Your task to perform on an android device: Empty the shopping cart on target.com. Search for dell alienware on target.com, select the first entry, and add it to the cart. Image 0: 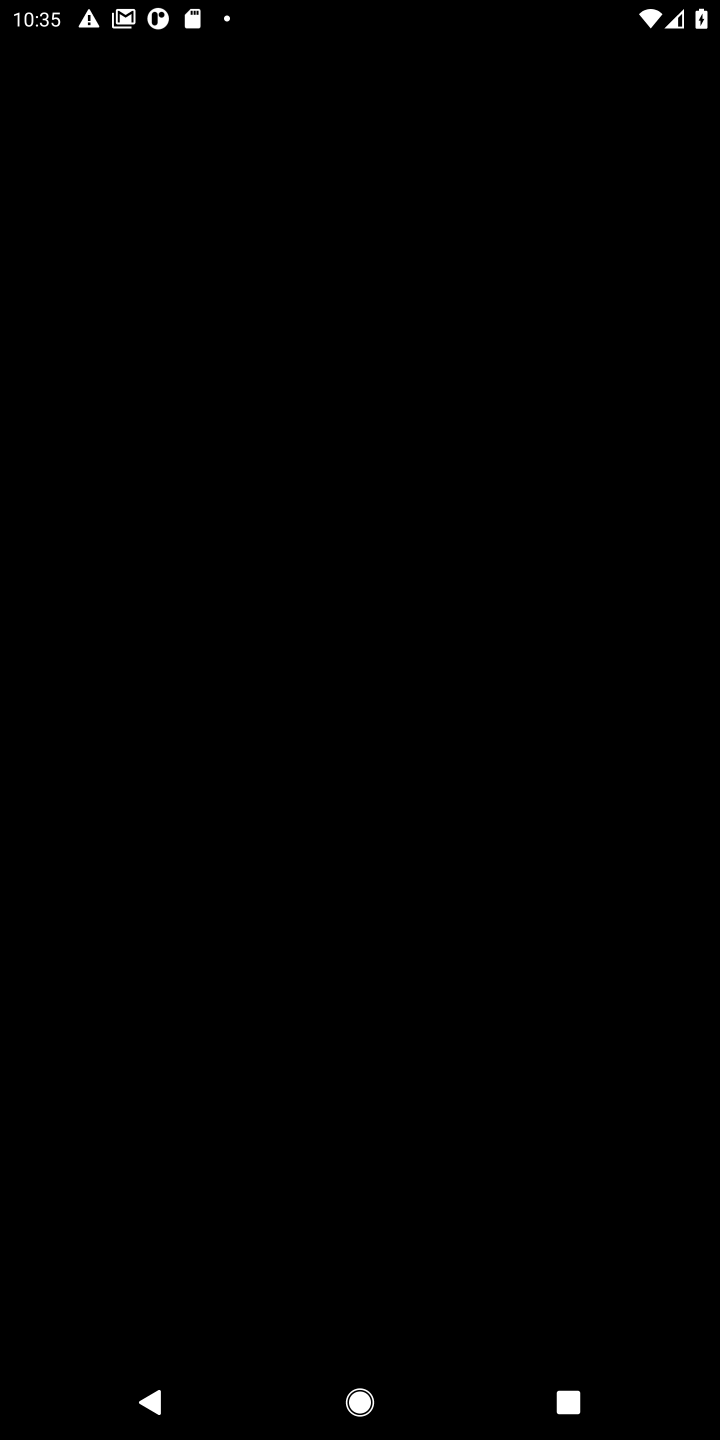
Step 0: press home button
Your task to perform on an android device: Empty the shopping cart on target.com. Search for dell alienware on target.com, select the first entry, and add it to the cart. Image 1: 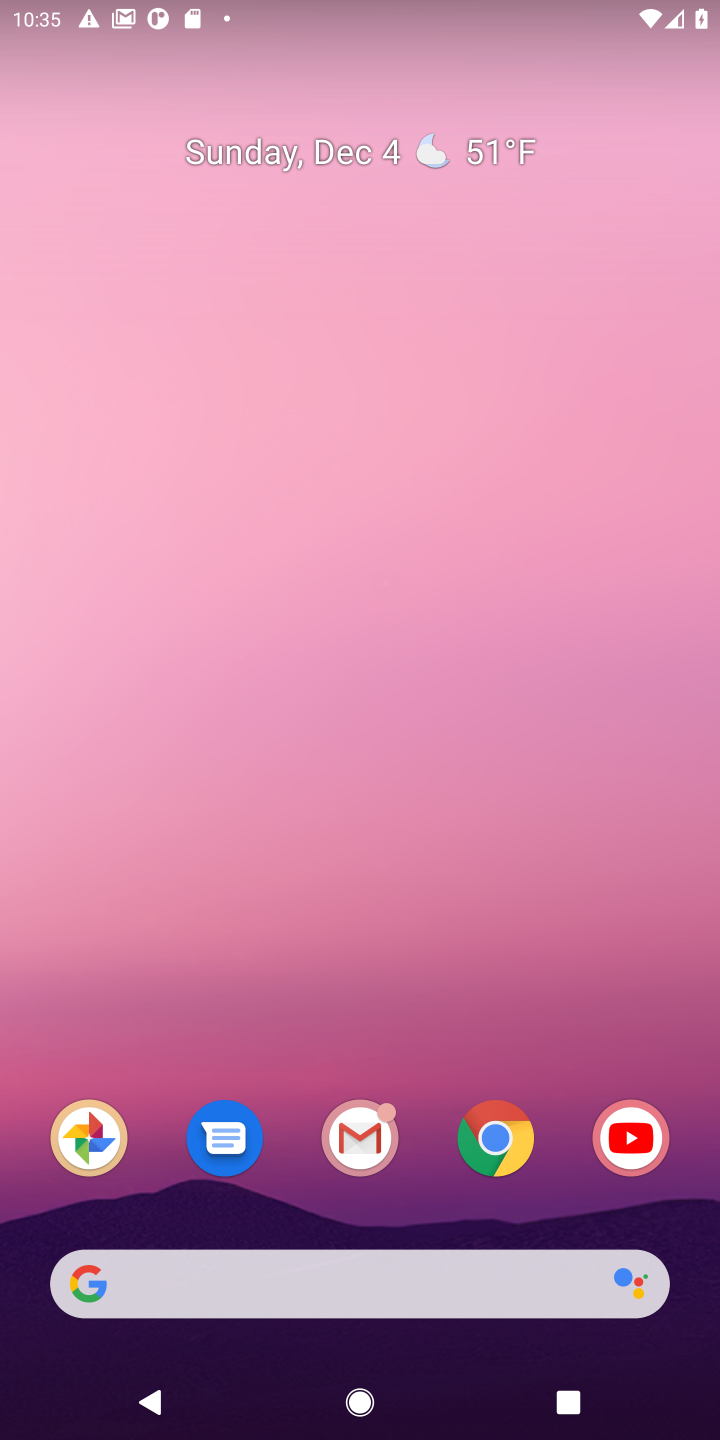
Step 1: click (489, 1147)
Your task to perform on an android device: Empty the shopping cart on target.com. Search for dell alienware on target.com, select the first entry, and add it to the cart. Image 2: 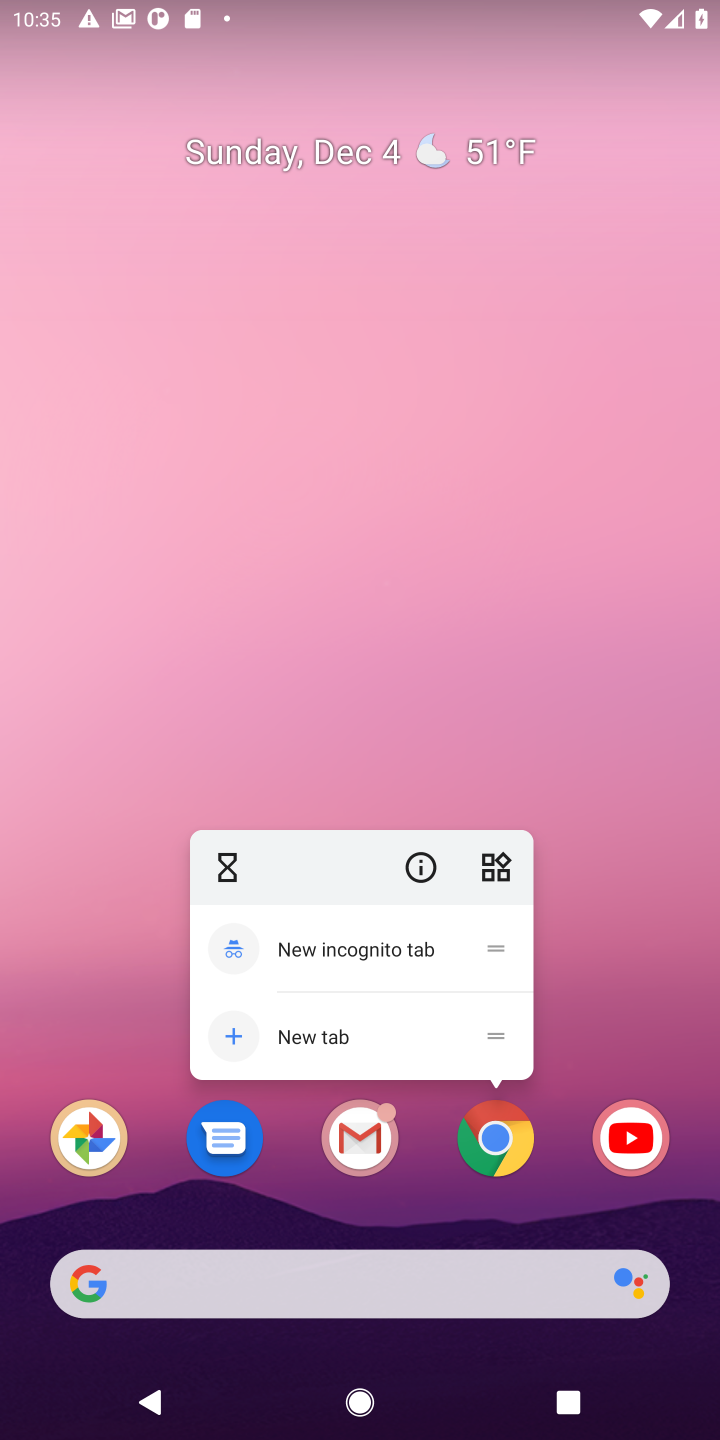
Step 2: click (489, 1147)
Your task to perform on an android device: Empty the shopping cart on target.com. Search for dell alienware on target.com, select the first entry, and add it to the cart. Image 3: 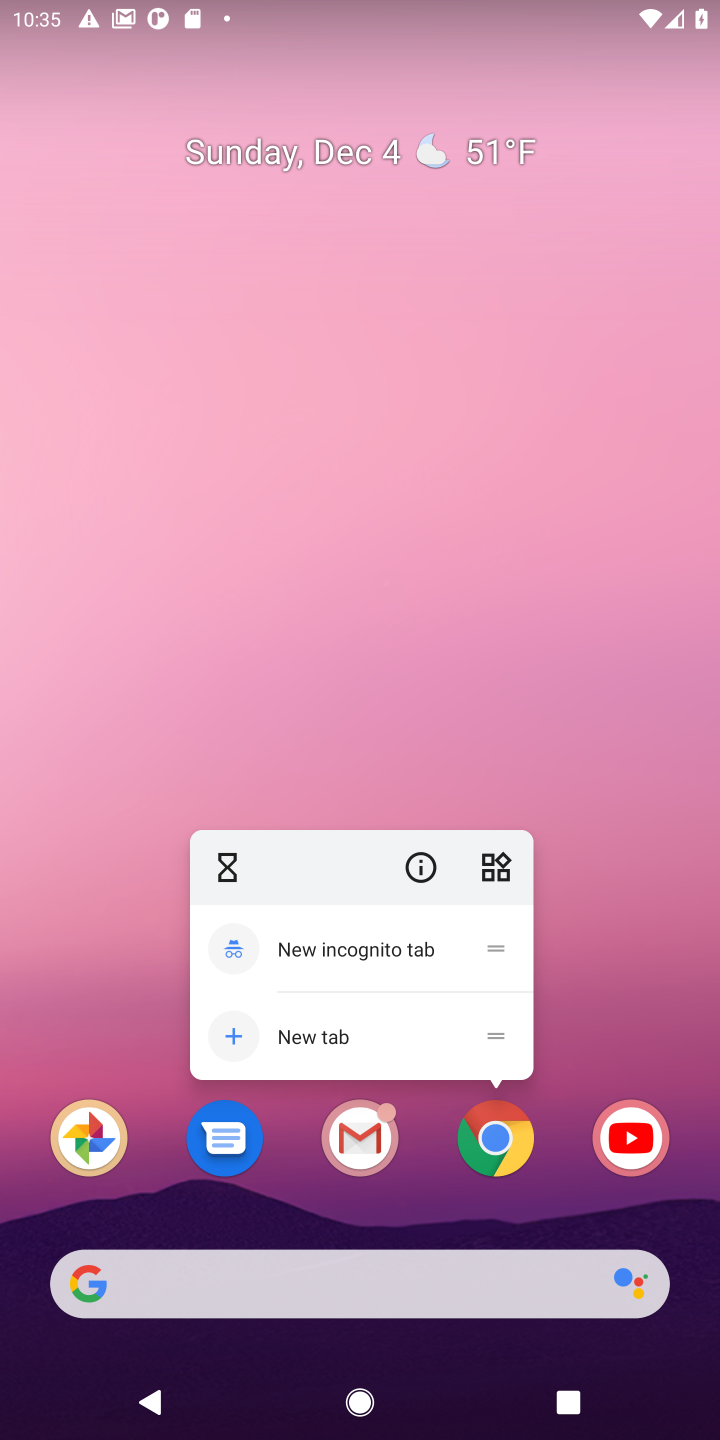
Step 3: click (489, 1147)
Your task to perform on an android device: Empty the shopping cart on target.com. Search for dell alienware on target.com, select the first entry, and add it to the cart. Image 4: 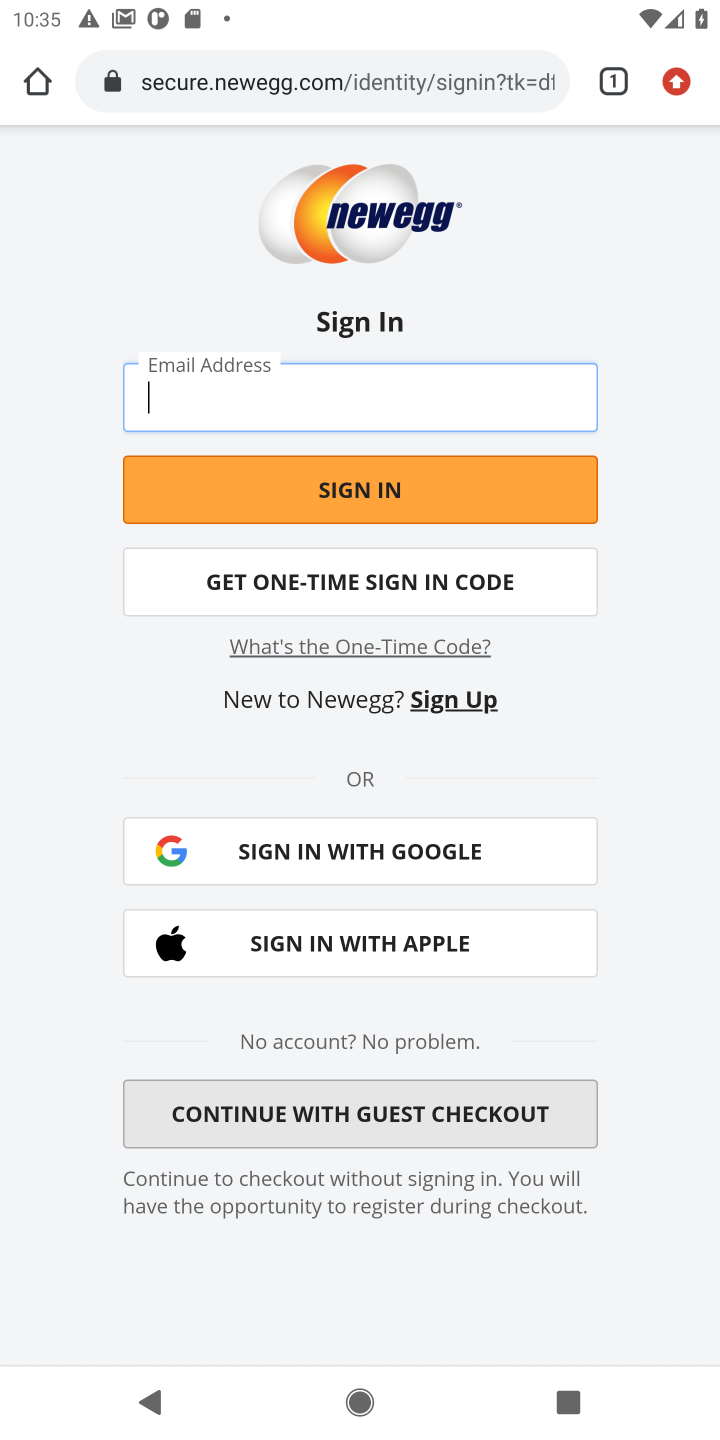
Step 4: click (427, 62)
Your task to perform on an android device: Empty the shopping cart on target.com. Search for dell alienware on target.com, select the first entry, and add it to the cart. Image 5: 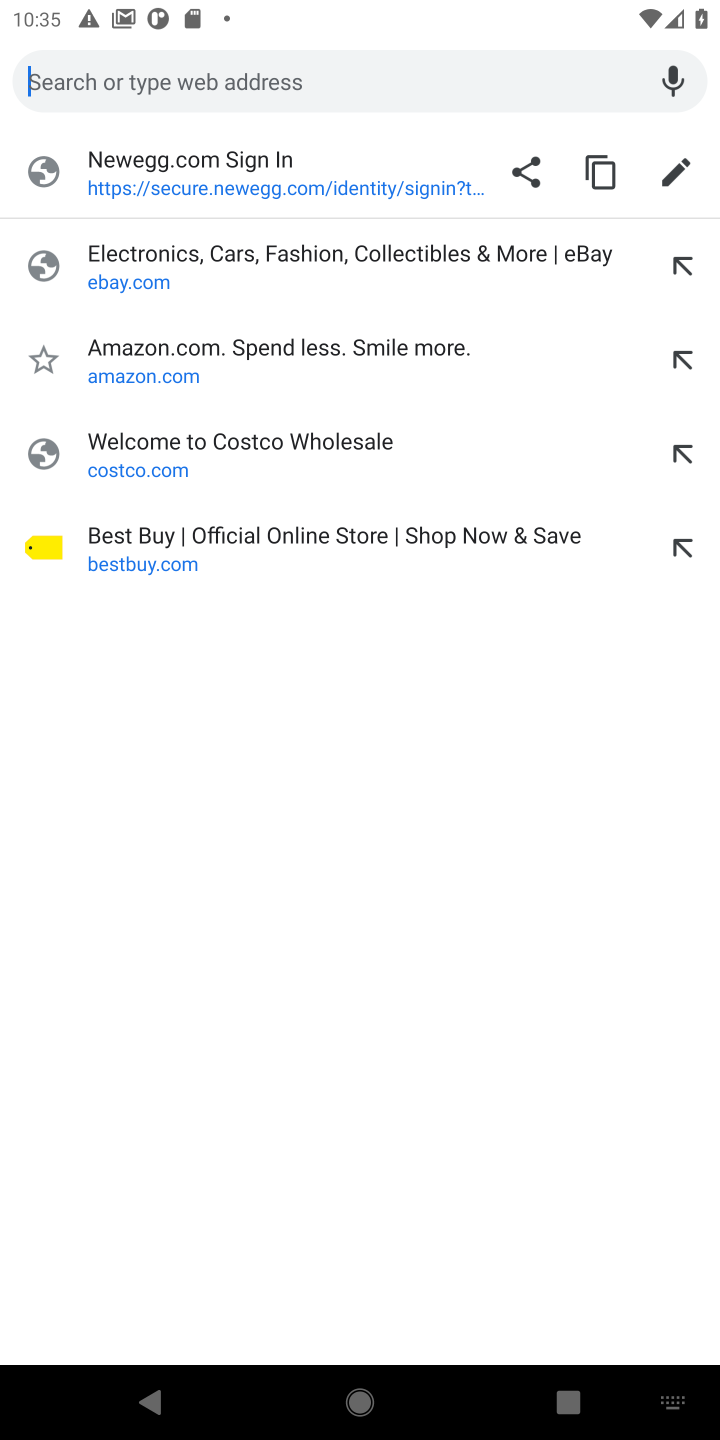
Step 5: press enter
Your task to perform on an android device: Empty the shopping cart on target.com. Search for dell alienware on target.com, select the first entry, and add it to the cart. Image 6: 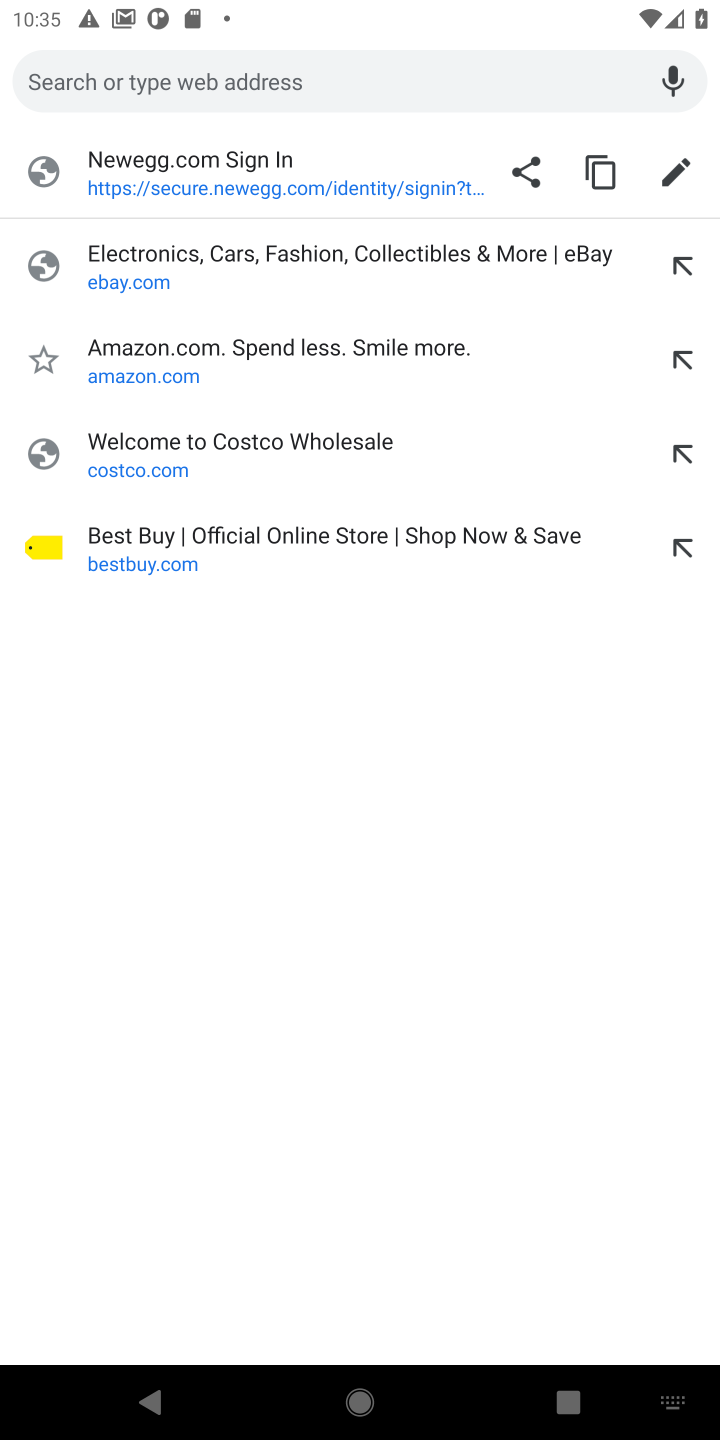
Step 6: type "target.com"
Your task to perform on an android device: Empty the shopping cart on target.com. Search for dell alienware on target.com, select the first entry, and add it to the cart. Image 7: 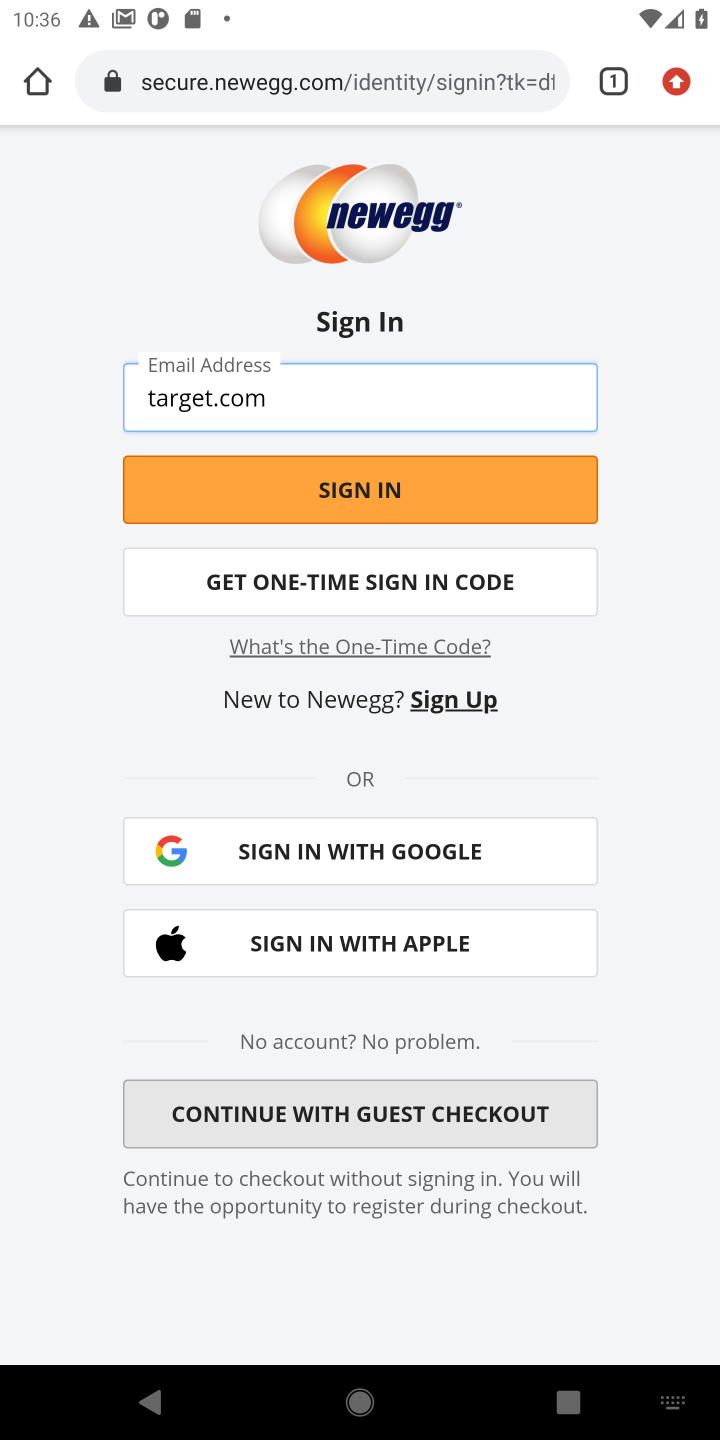
Step 7: click (328, 90)
Your task to perform on an android device: Empty the shopping cart on target.com. Search for dell alienware on target.com, select the first entry, and add it to the cart. Image 8: 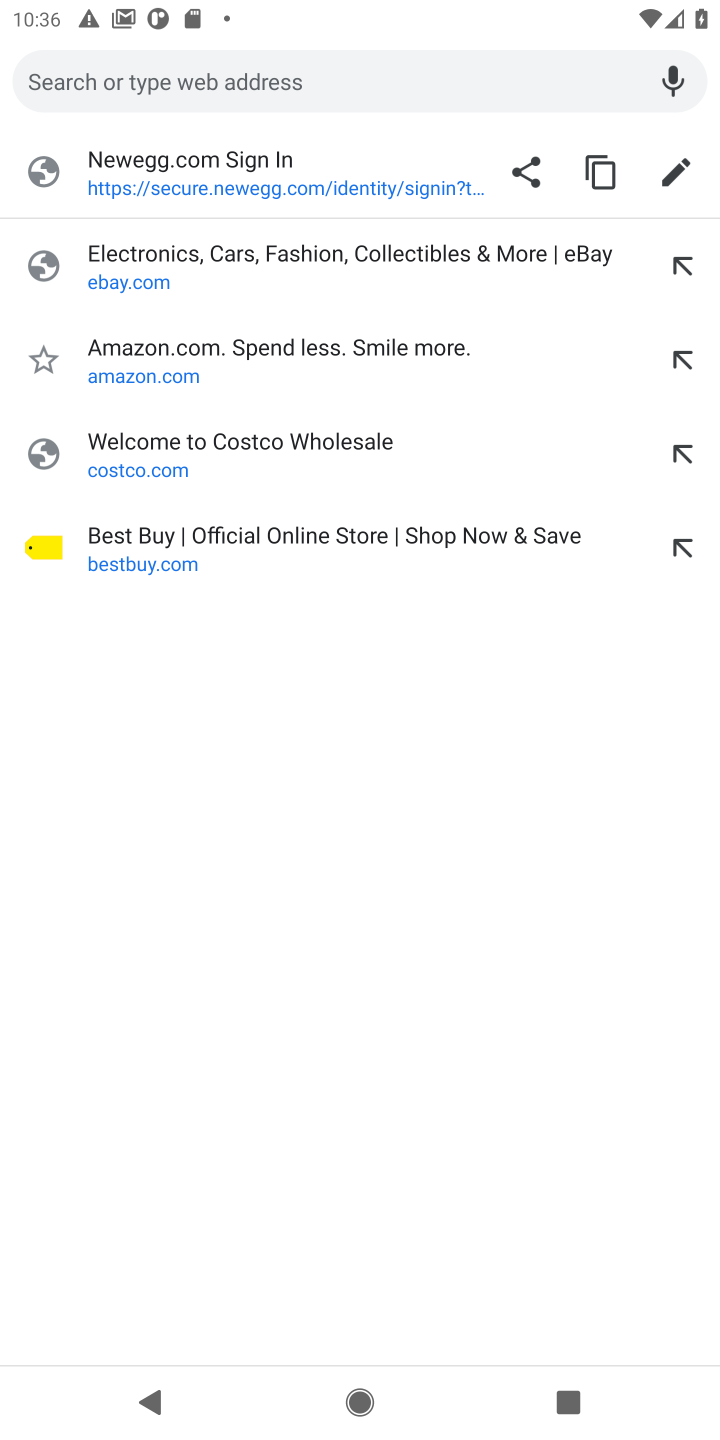
Step 8: type "target.com"
Your task to perform on an android device: Empty the shopping cart on target.com. Search for dell alienware on target.com, select the first entry, and add it to the cart. Image 9: 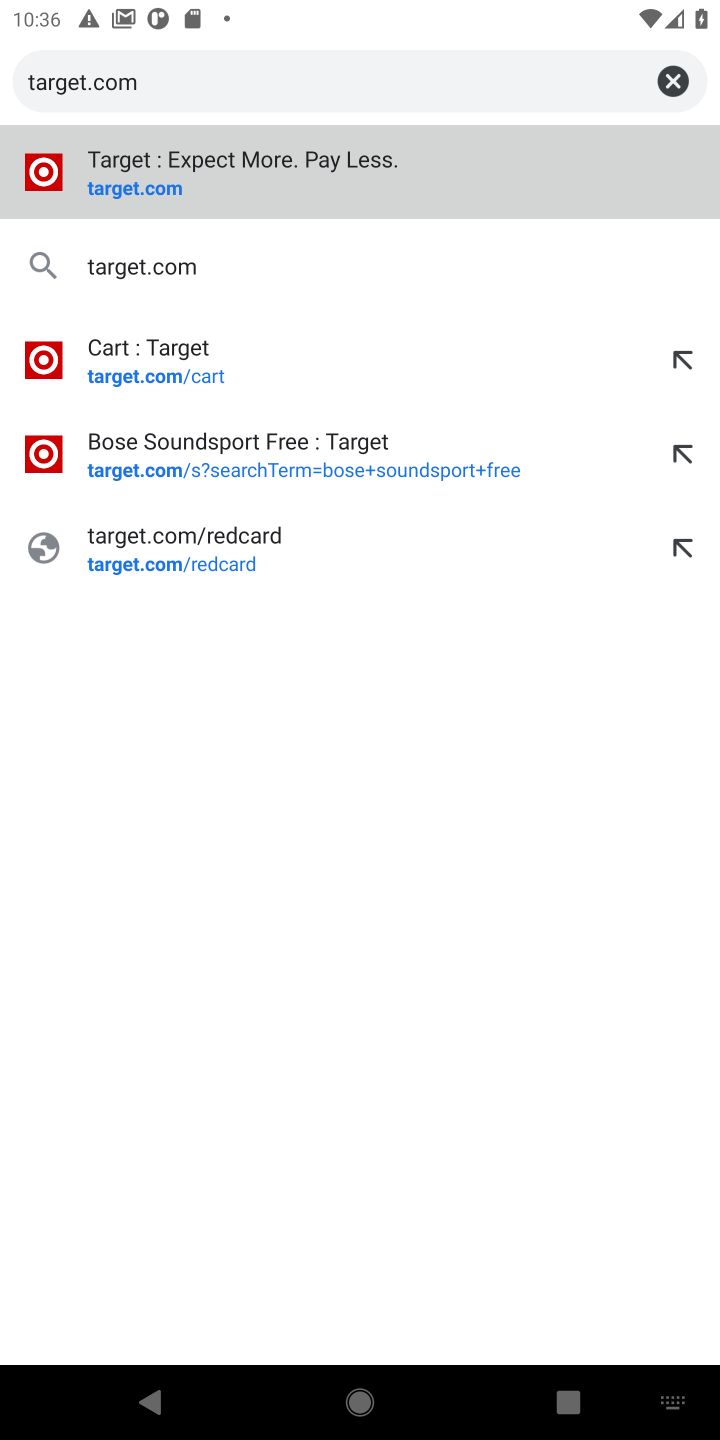
Step 9: press enter
Your task to perform on an android device: Empty the shopping cart on target.com. Search for dell alienware on target.com, select the first entry, and add it to the cart. Image 10: 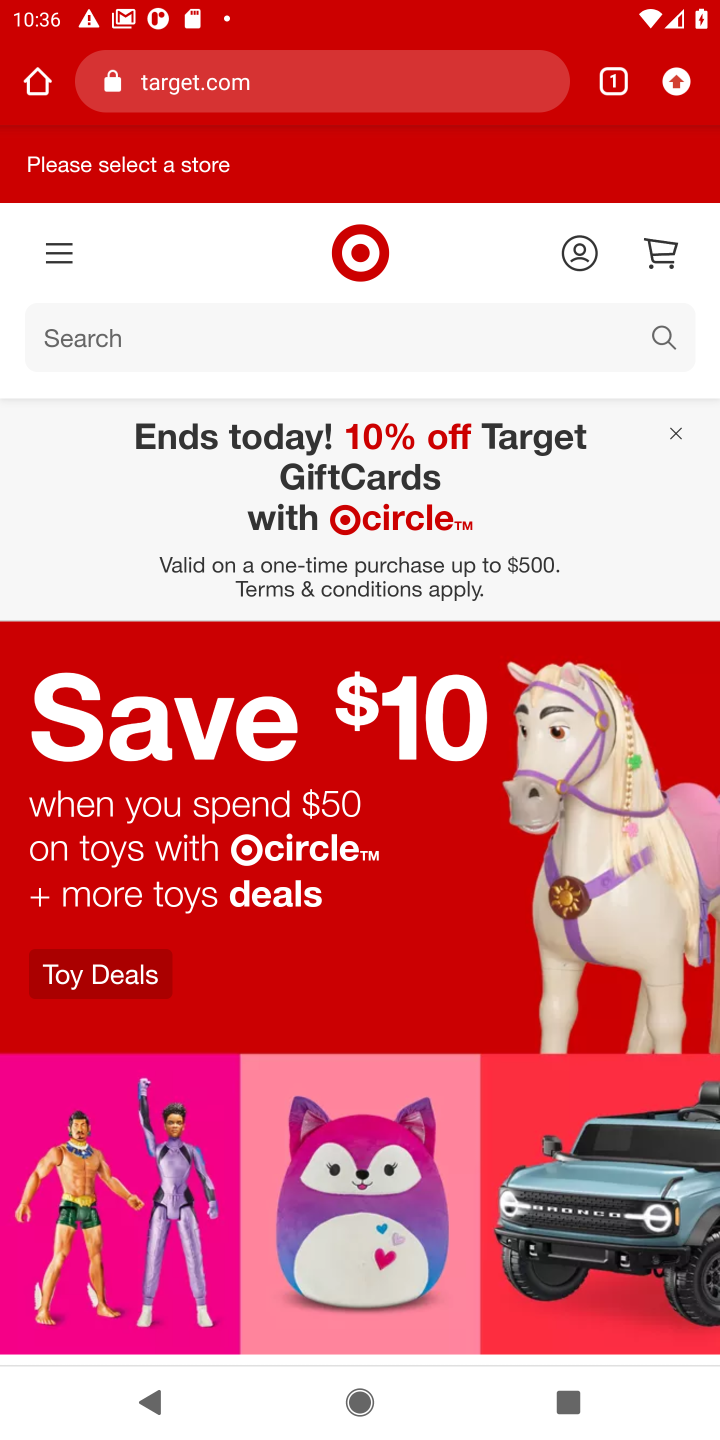
Step 10: click (662, 248)
Your task to perform on an android device: Empty the shopping cart on target.com. Search for dell alienware on target.com, select the first entry, and add it to the cart. Image 11: 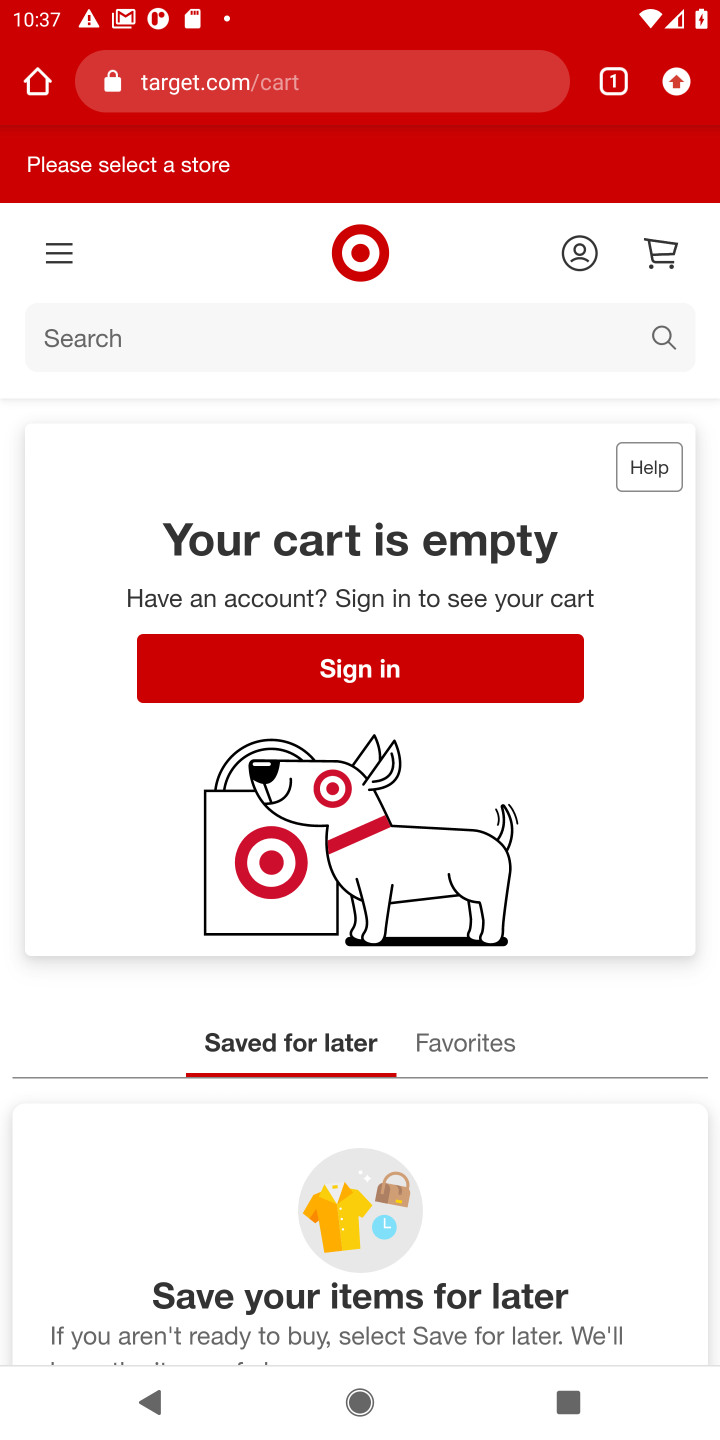
Step 11: click (659, 326)
Your task to perform on an android device: Empty the shopping cart on target.com. Search for dell alienware on target.com, select the first entry, and add it to the cart. Image 12: 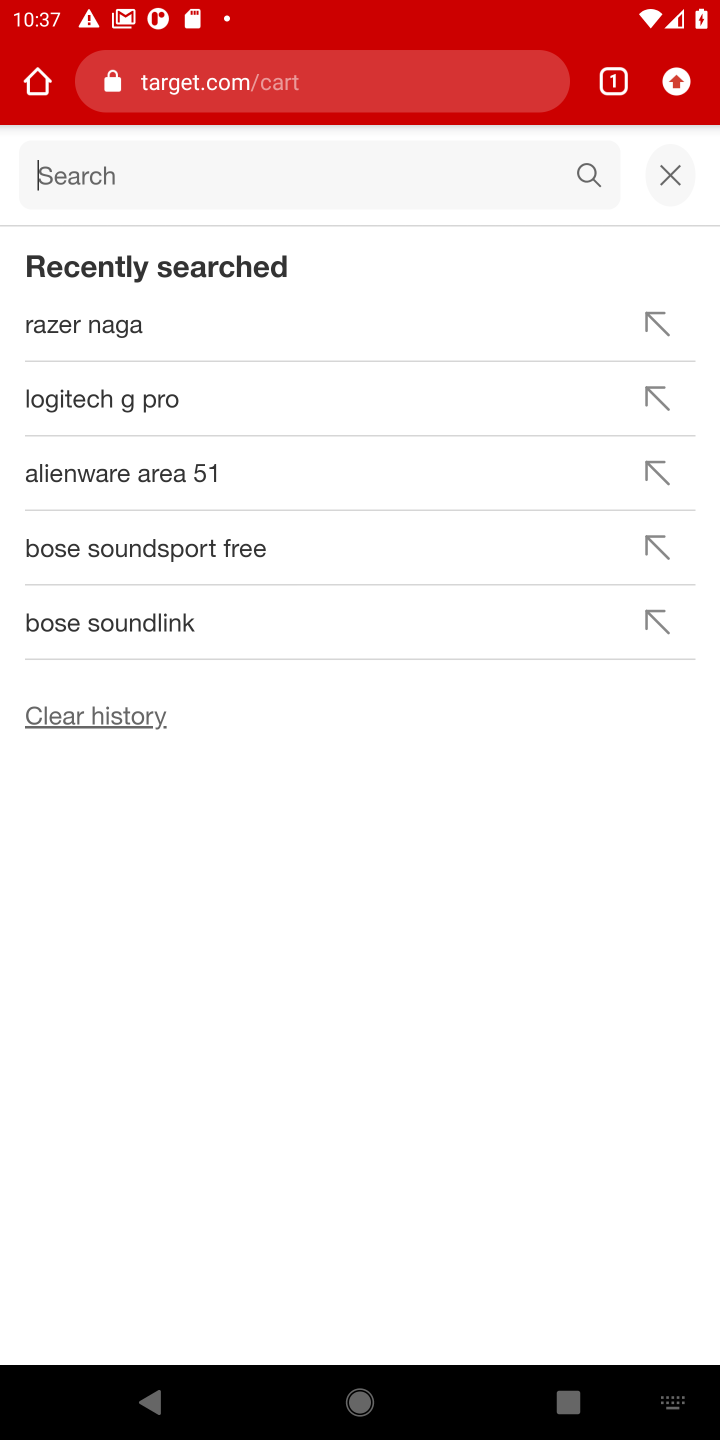
Step 12: type "dell alienware"
Your task to perform on an android device: Empty the shopping cart on target.com. Search for dell alienware on target.com, select the first entry, and add it to the cart. Image 13: 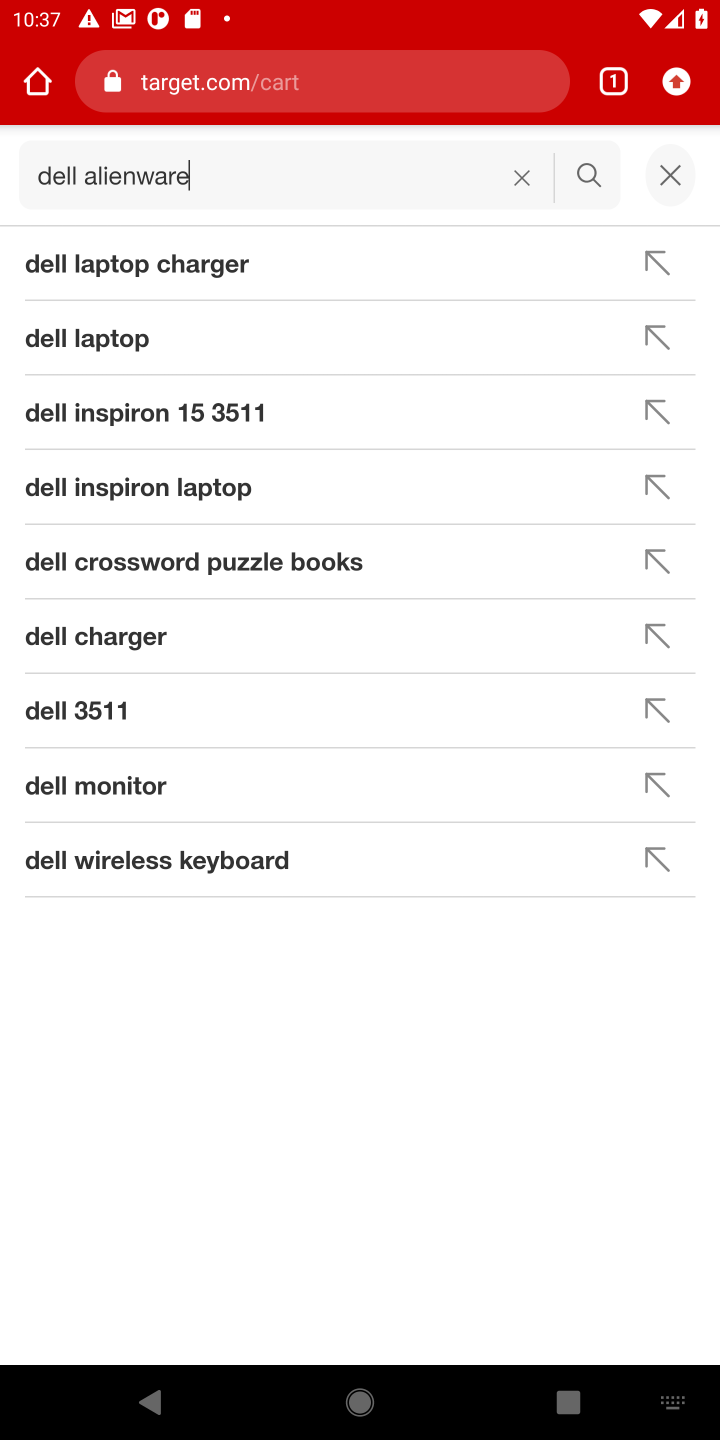
Step 13: press enter
Your task to perform on an android device: Empty the shopping cart on target.com. Search for dell alienware on target.com, select the first entry, and add it to the cart. Image 14: 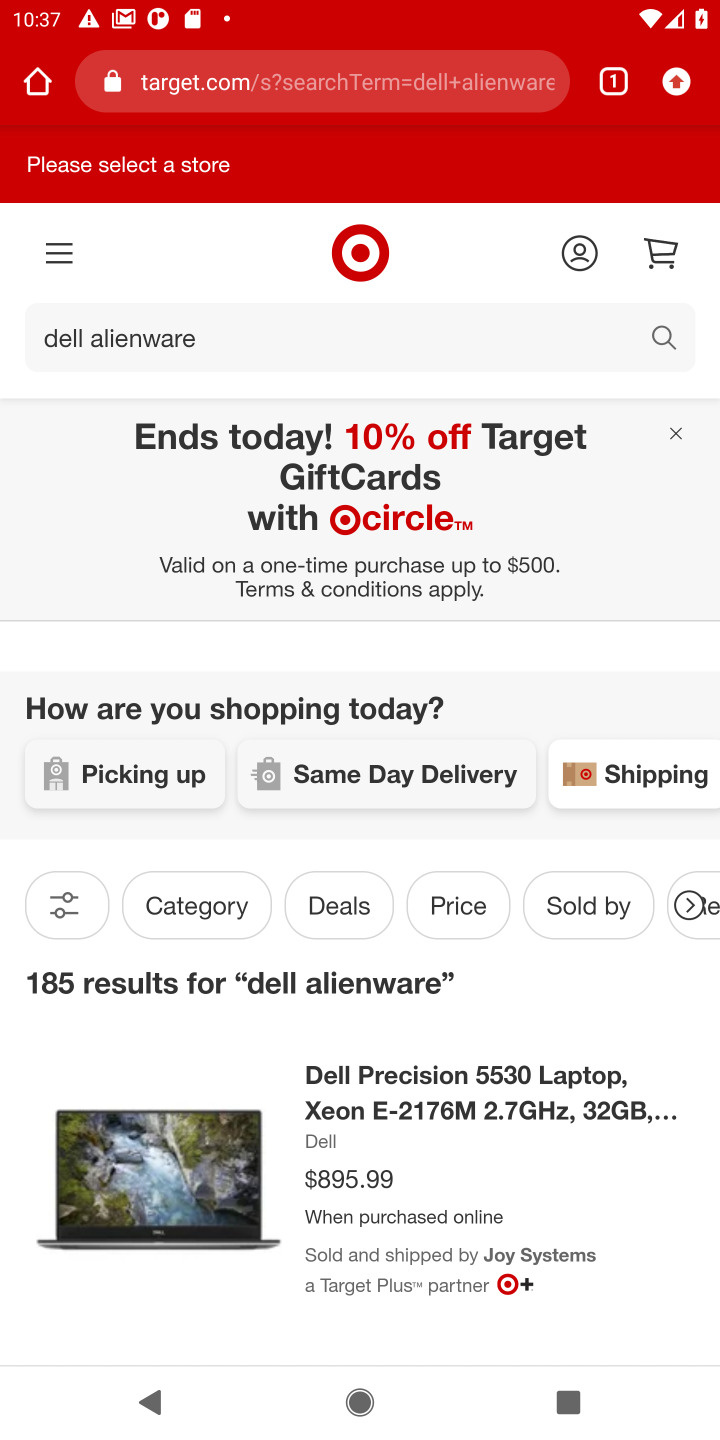
Step 14: task complete